Your task to perform on an android device: toggle show notifications on the lock screen Image 0: 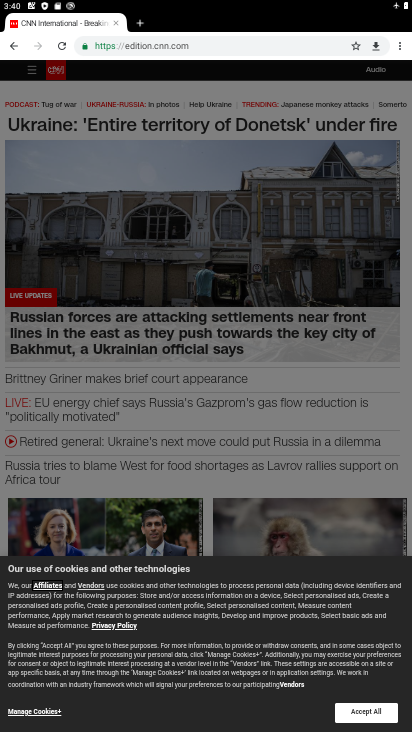
Step 0: press home button
Your task to perform on an android device: toggle show notifications on the lock screen Image 1: 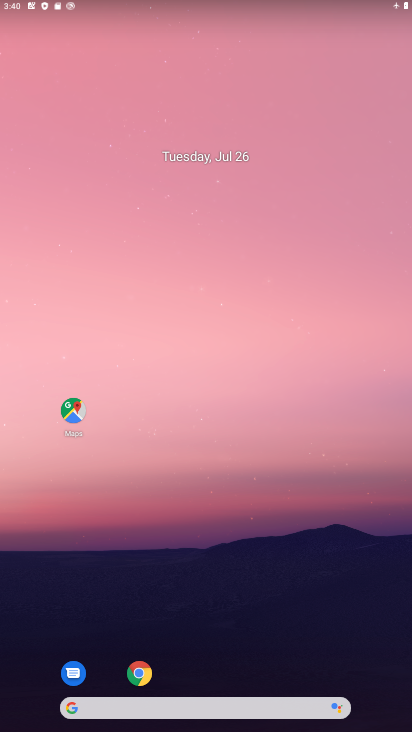
Step 1: drag from (219, 682) to (217, 79)
Your task to perform on an android device: toggle show notifications on the lock screen Image 2: 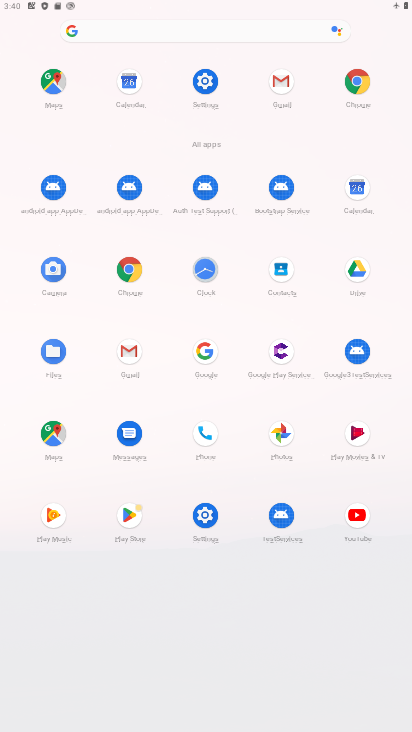
Step 2: click (210, 85)
Your task to perform on an android device: toggle show notifications on the lock screen Image 3: 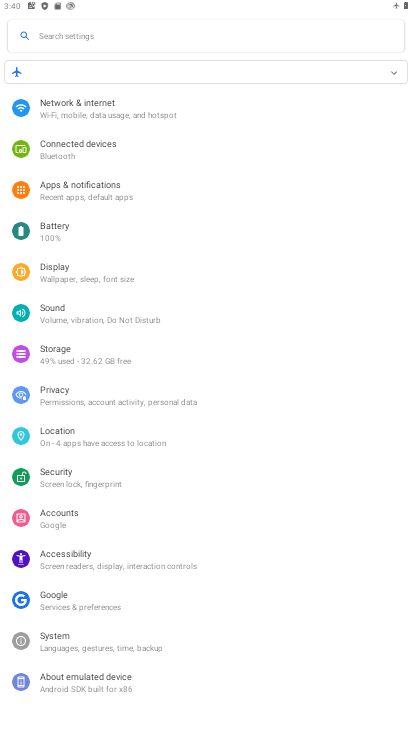
Step 3: click (73, 191)
Your task to perform on an android device: toggle show notifications on the lock screen Image 4: 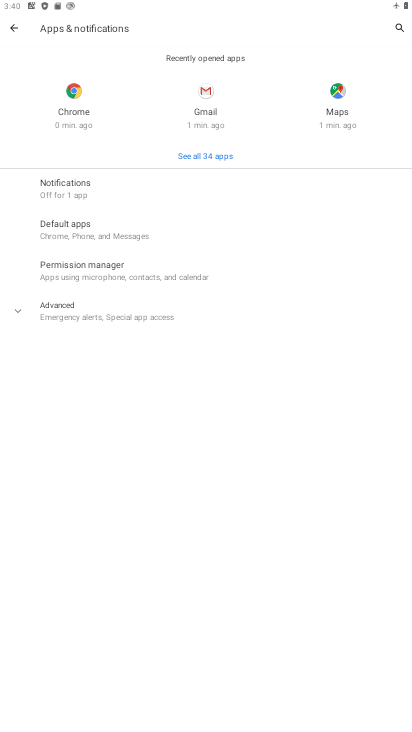
Step 4: click (73, 191)
Your task to perform on an android device: toggle show notifications on the lock screen Image 5: 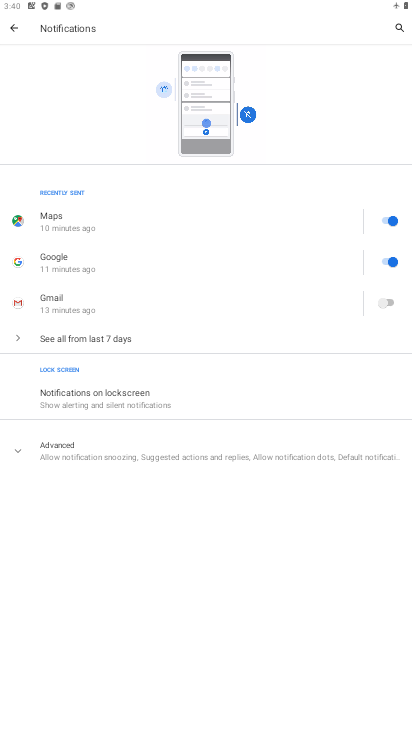
Step 5: click (59, 401)
Your task to perform on an android device: toggle show notifications on the lock screen Image 6: 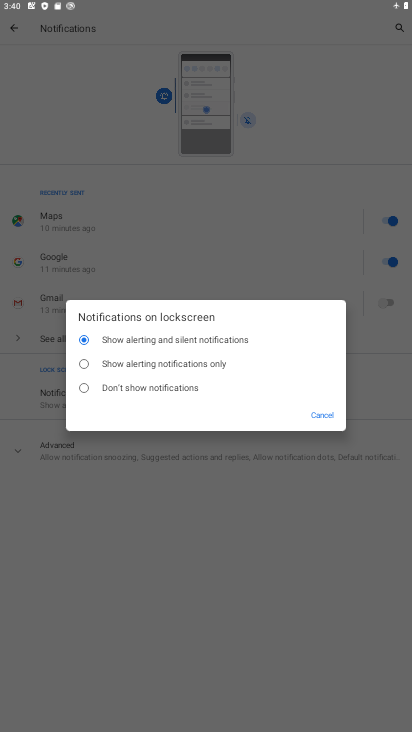
Step 6: click (80, 391)
Your task to perform on an android device: toggle show notifications on the lock screen Image 7: 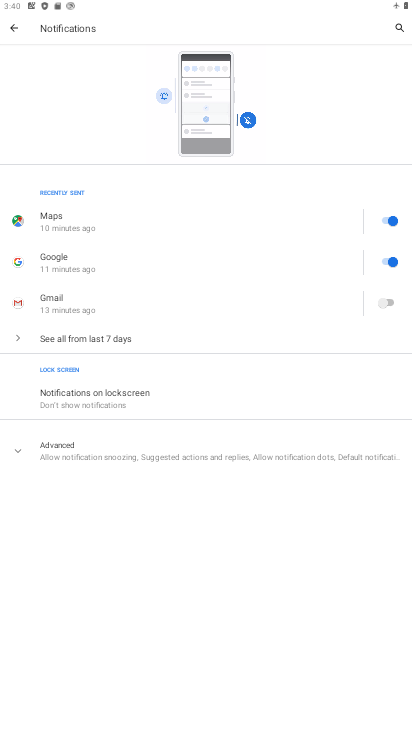
Step 7: task complete